Your task to perform on an android device: turn on data saver in the chrome app Image 0: 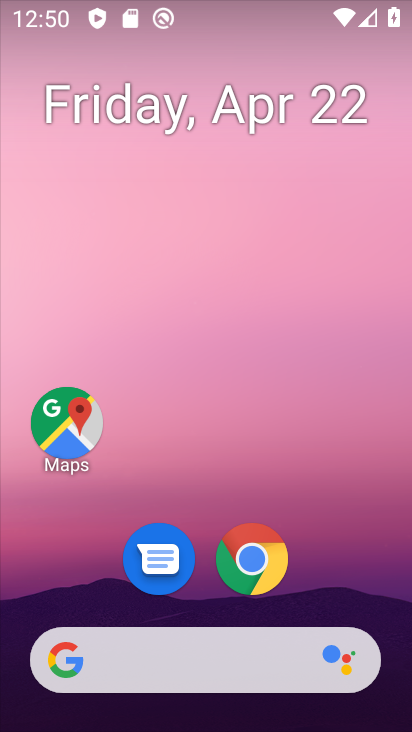
Step 0: click (255, 567)
Your task to perform on an android device: turn on data saver in the chrome app Image 1: 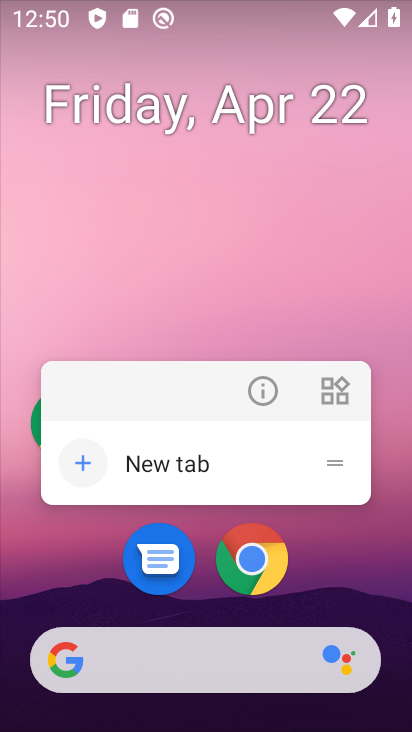
Step 1: click (255, 562)
Your task to perform on an android device: turn on data saver in the chrome app Image 2: 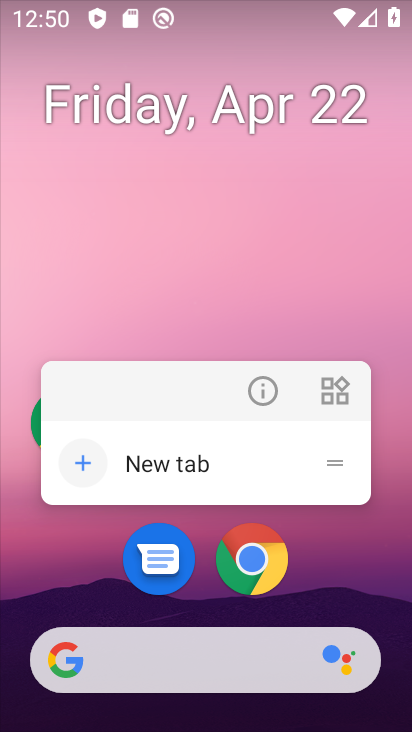
Step 2: click (255, 562)
Your task to perform on an android device: turn on data saver in the chrome app Image 3: 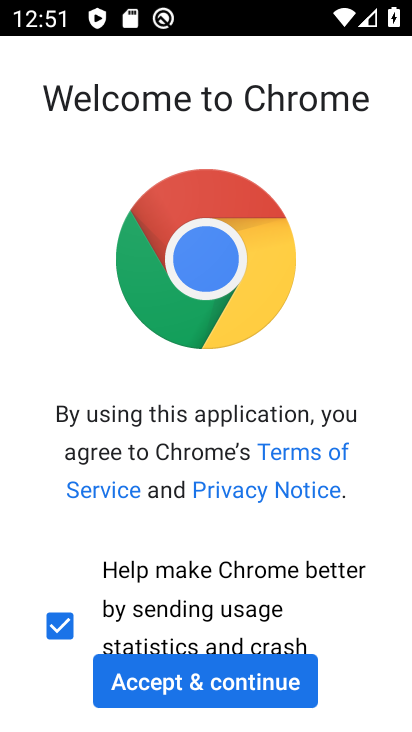
Step 3: click (199, 664)
Your task to perform on an android device: turn on data saver in the chrome app Image 4: 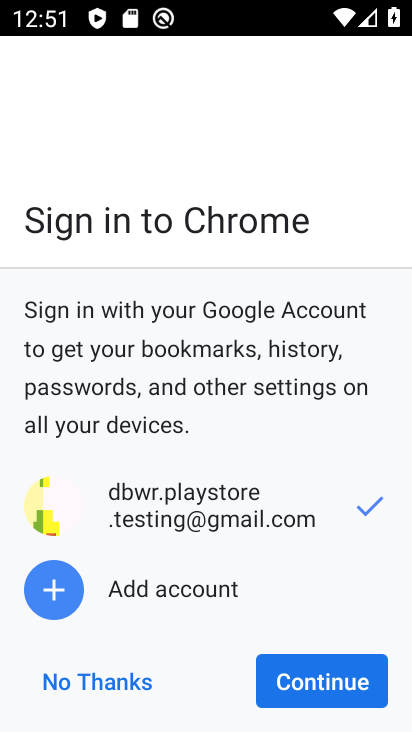
Step 4: click (321, 685)
Your task to perform on an android device: turn on data saver in the chrome app Image 5: 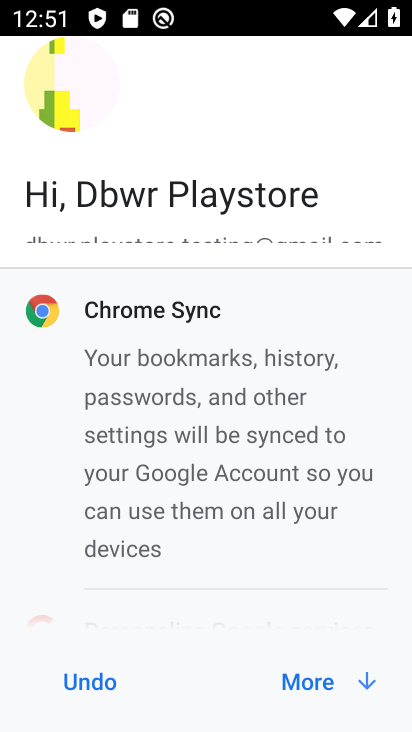
Step 5: click (321, 685)
Your task to perform on an android device: turn on data saver in the chrome app Image 6: 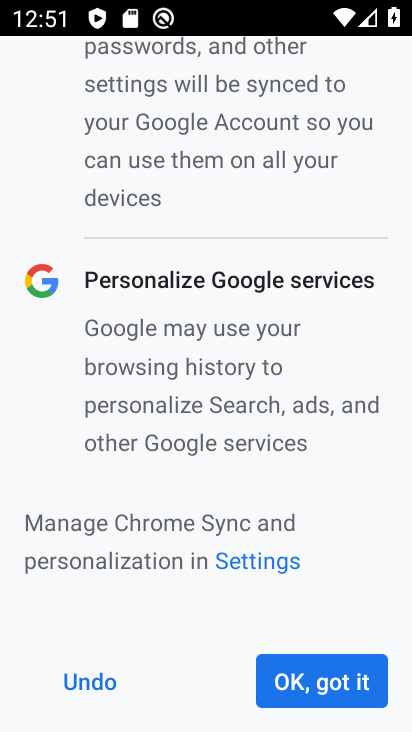
Step 6: click (321, 685)
Your task to perform on an android device: turn on data saver in the chrome app Image 7: 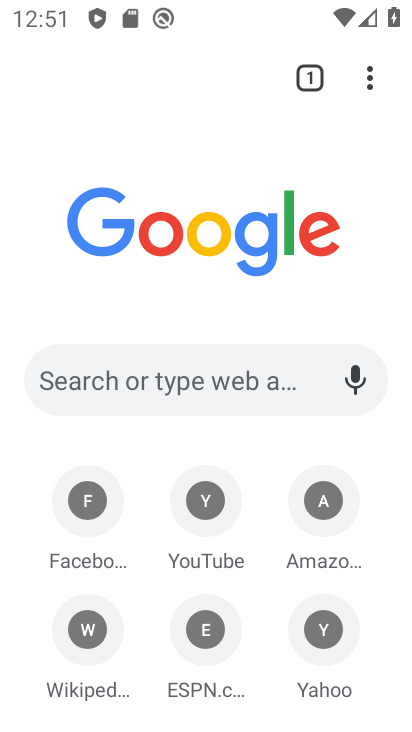
Step 7: click (369, 74)
Your task to perform on an android device: turn on data saver in the chrome app Image 8: 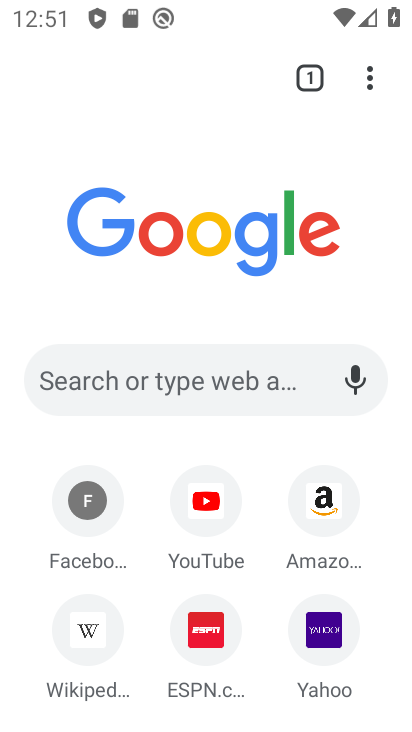
Step 8: click (363, 78)
Your task to perform on an android device: turn on data saver in the chrome app Image 9: 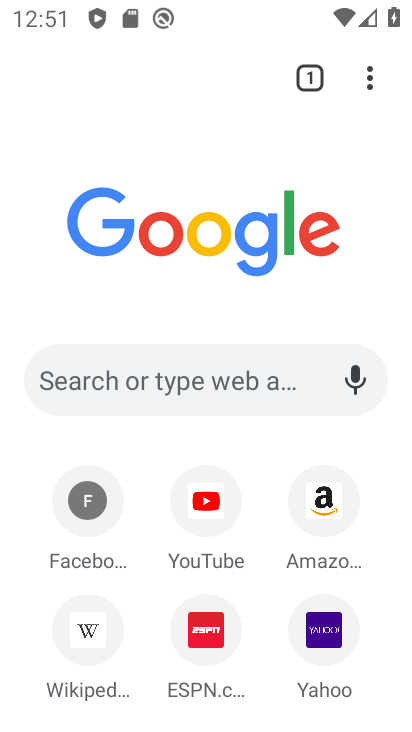
Step 9: click (369, 77)
Your task to perform on an android device: turn on data saver in the chrome app Image 10: 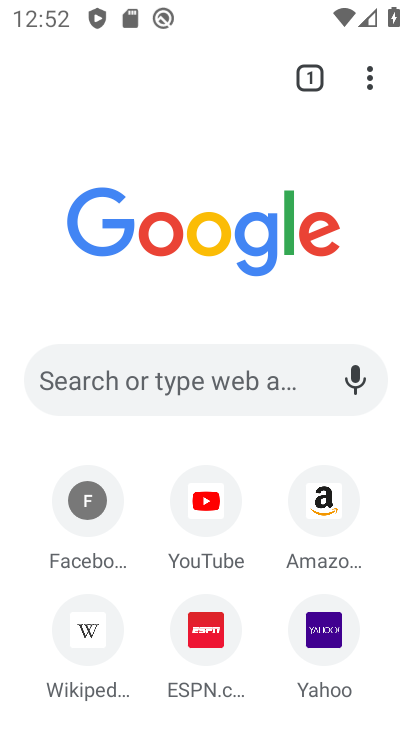
Step 10: click (369, 77)
Your task to perform on an android device: turn on data saver in the chrome app Image 11: 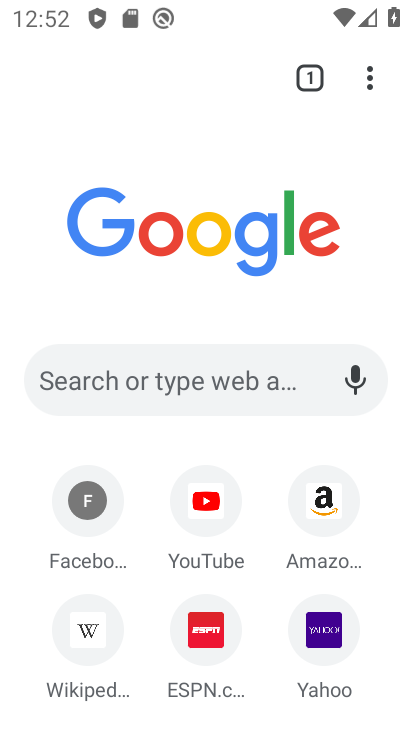
Step 11: click (369, 77)
Your task to perform on an android device: turn on data saver in the chrome app Image 12: 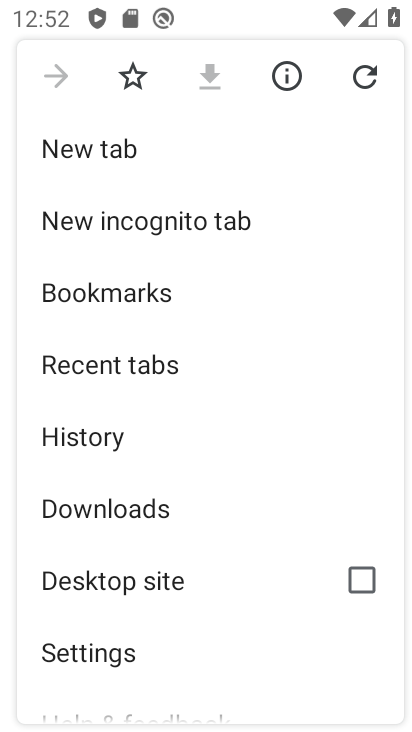
Step 12: click (119, 654)
Your task to perform on an android device: turn on data saver in the chrome app Image 13: 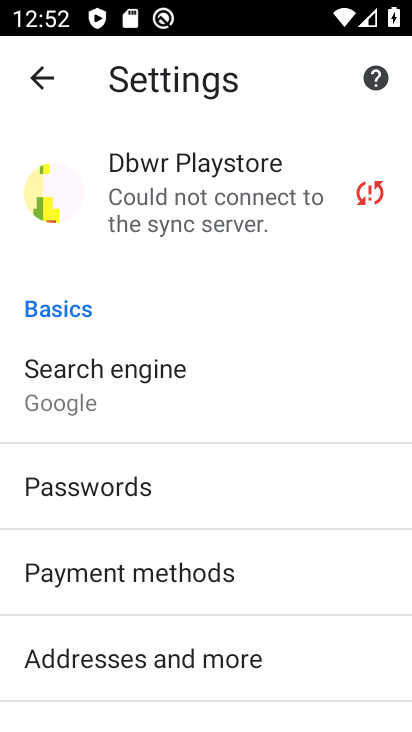
Step 13: drag from (144, 675) to (155, 262)
Your task to perform on an android device: turn on data saver in the chrome app Image 14: 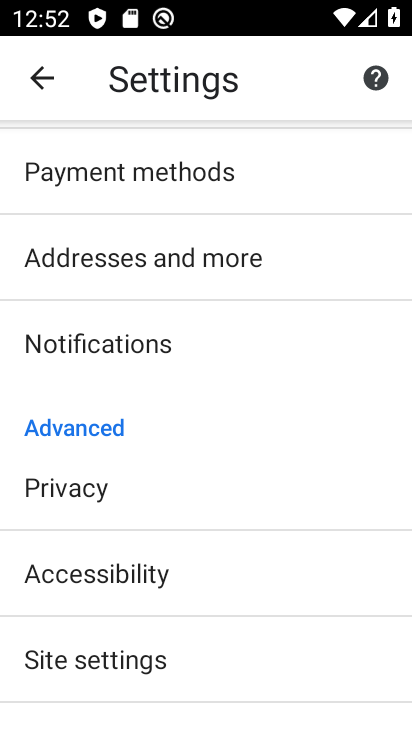
Step 14: drag from (94, 694) to (92, 445)
Your task to perform on an android device: turn on data saver in the chrome app Image 15: 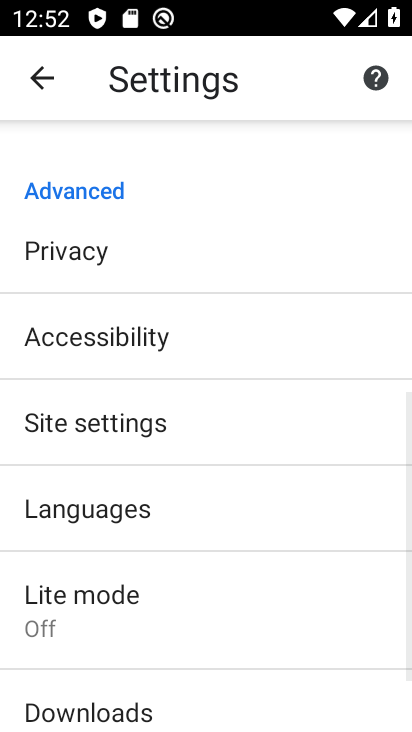
Step 15: click (76, 609)
Your task to perform on an android device: turn on data saver in the chrome app Image 16: 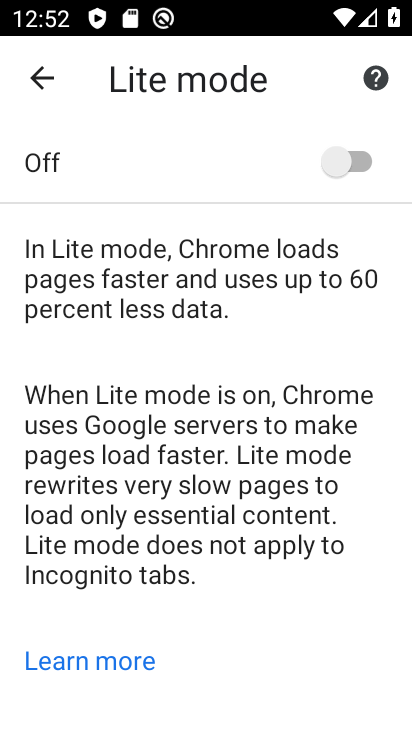
Step 16: click (358, 165)
Your task to perform on an android device: turn on data saver in the chrome app Image 17: 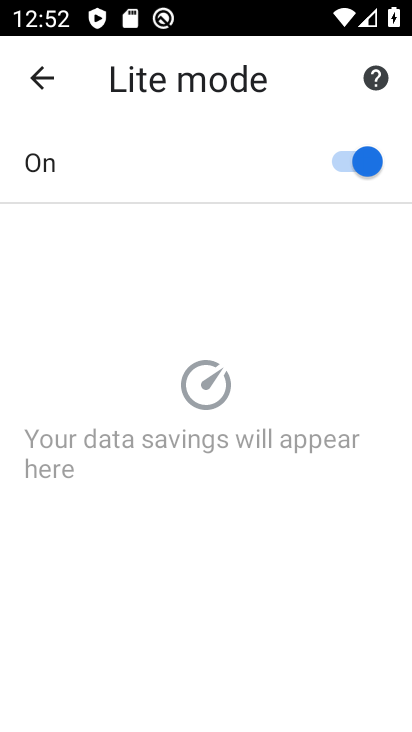
Step 17: task complete